Your task to perform on an android device: Show me popular games on the Play Store Image 0: 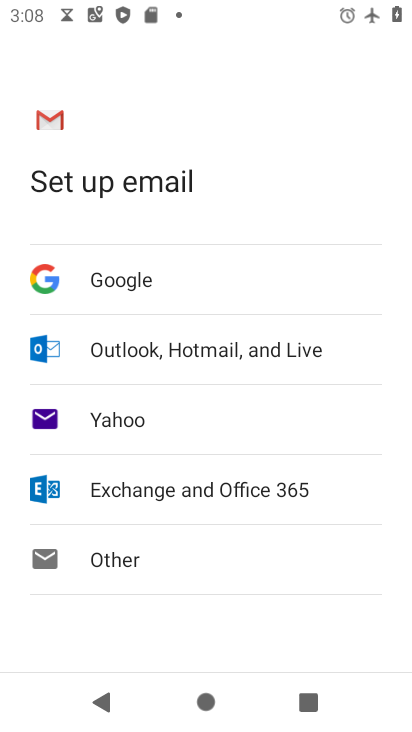
Step 0: press back button
Your task to perform on an android device: Show me popular games on the Play Store Image 1: 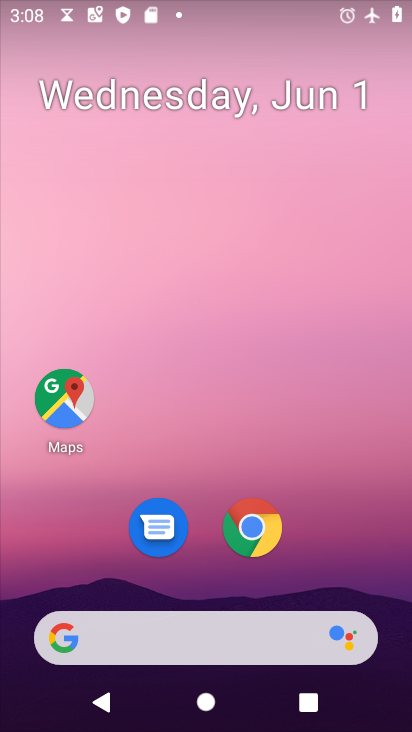
Step 1: drag from (324, 572) to (277, 100)
Your task to perform on an android device: Show me popular games on the Play Store Image 2: 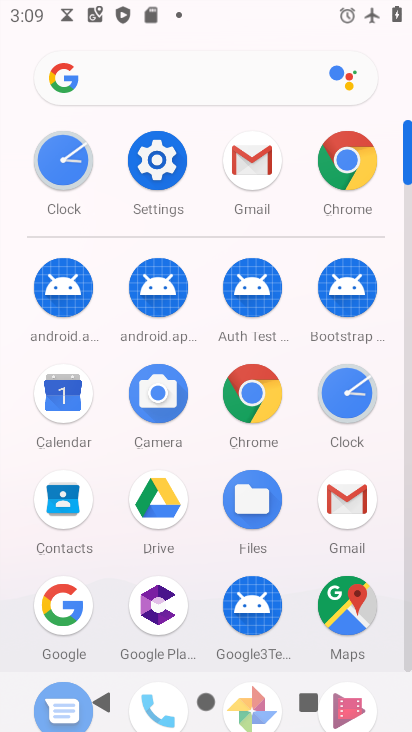
Step 2: drag from (198, 570) to (203, 442)
Your task to perform on an android device: Show me popular games on the Play Store Image 3: 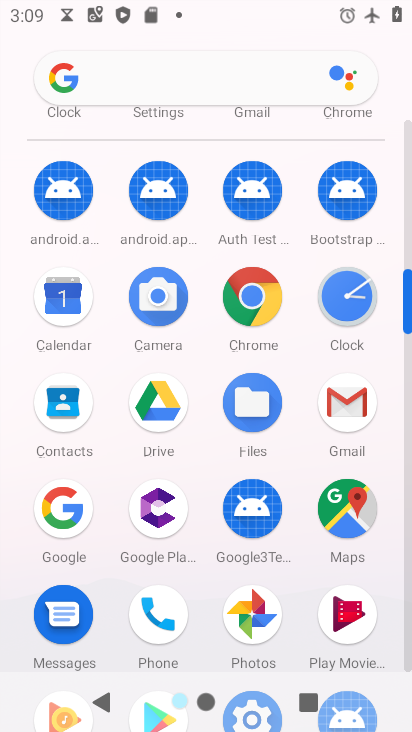
Step 3: drag from (193, 579) to (204, 437)
Your task to perform on an android device: Show me popular games on the Play Store Image 4: 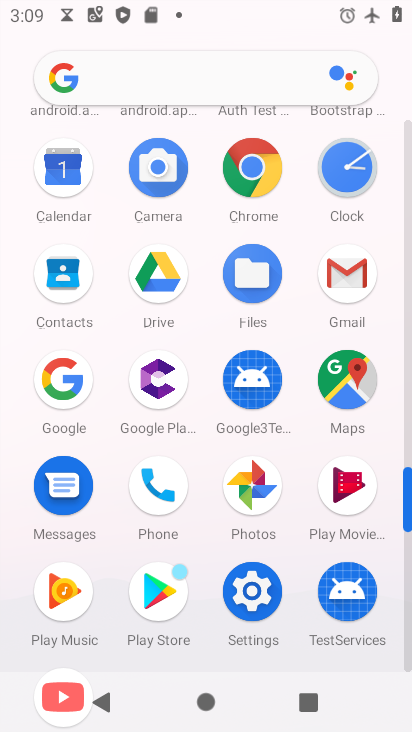
Step 4: click (163, 589)
Your task to perform on an android device: Show me popular games on the Play Store Image 5: 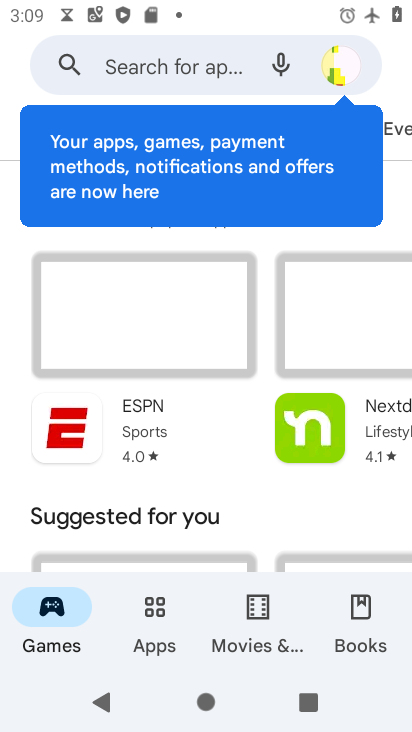
Step 5: click (167, 48)
Your task to perform on an android device: Show me popular games on the Play Store Image 6: 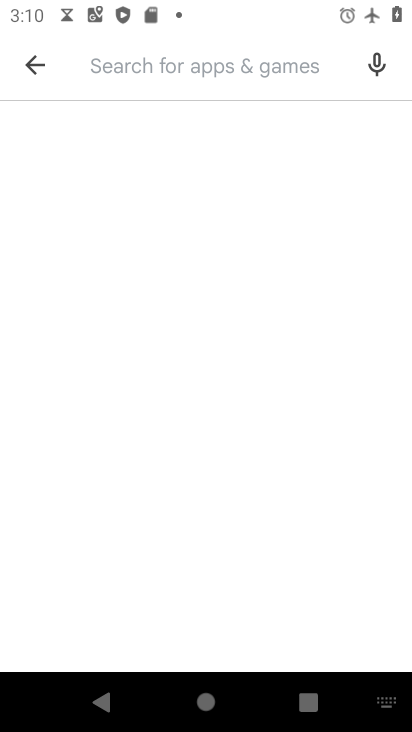
Step 6: type "popular games"
Your task to perform on an android device: Show me popular games on the Play Store Image 7: 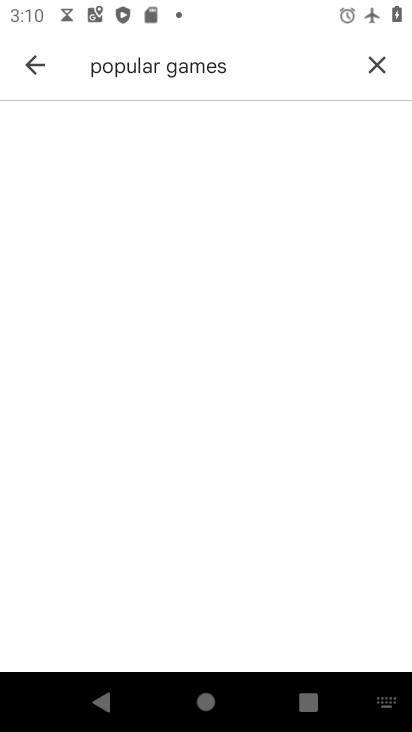
Step 7: task complete